Your task to perform on an android device: check data usage Image 0: 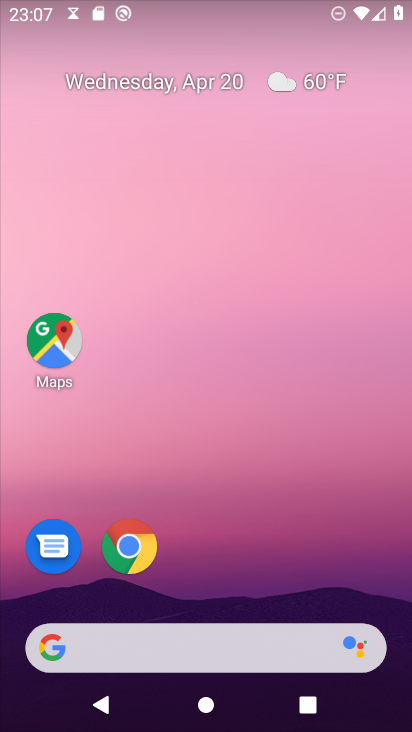
Step 0: drag from (239, 574) to (234, 28)
Your task to perform on an android device: check data usage Image 1: 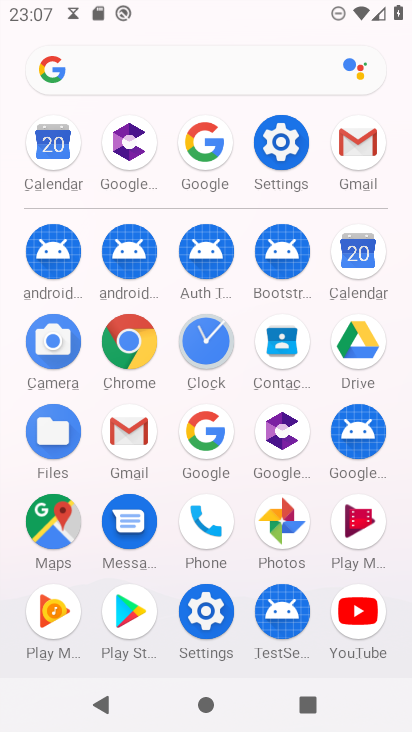
Step 1: click (279, 146)
Your task to perform on an android device: check data usage Image 2: 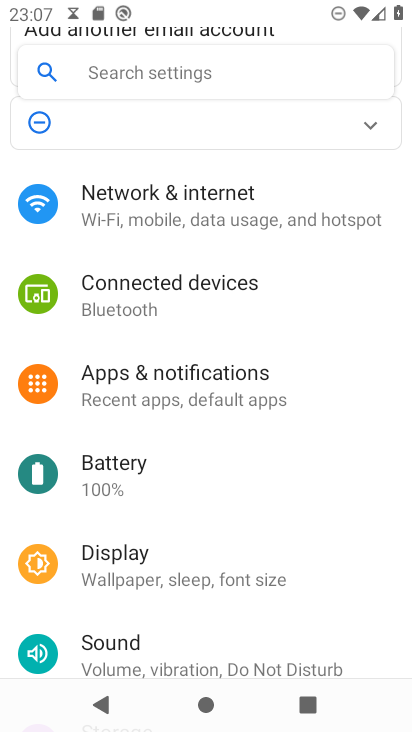
Step 2: click (203, 218)
Your task to perform on an android device: check data usage Image 3: 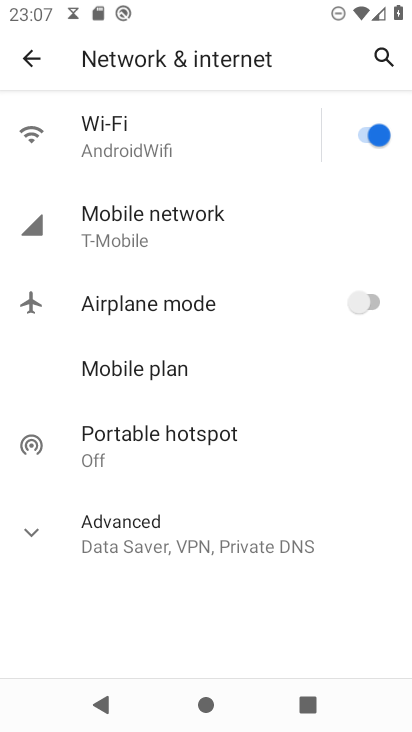
Step 3: click (194, 230)
Your task to perform on an android device: check data usage Image 4: 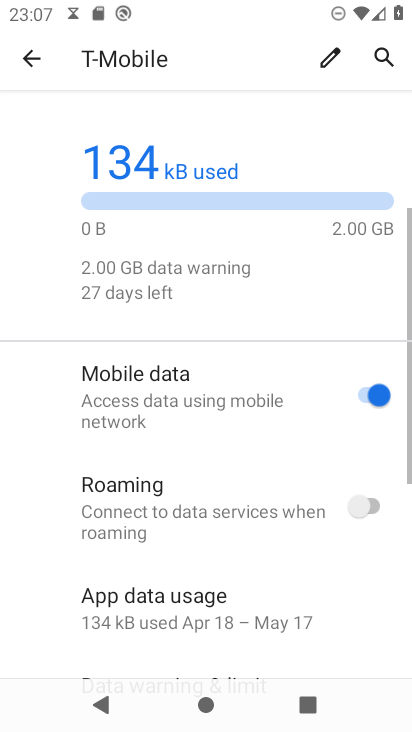
Step 4: task complete